Your task to perform on an android device: Open location settings Image 0: 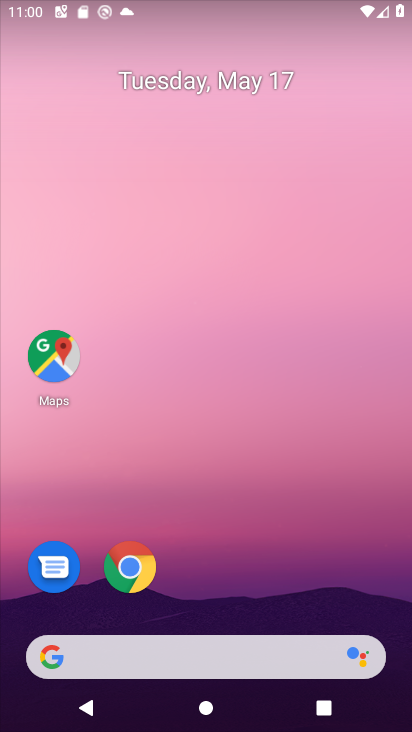
Step 0: drag from (201, 596) to (234, 166)
Your task to perform on an android device: Open location settings Image 1: 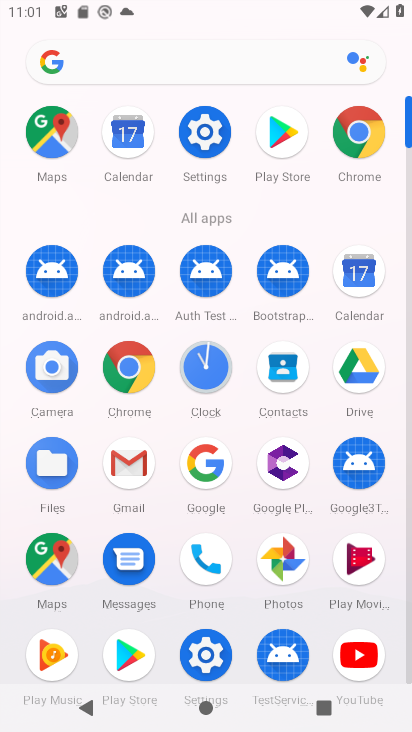
Step 1: click (211, 127)
Your task to perform on an android device: Open location settings Image 2: 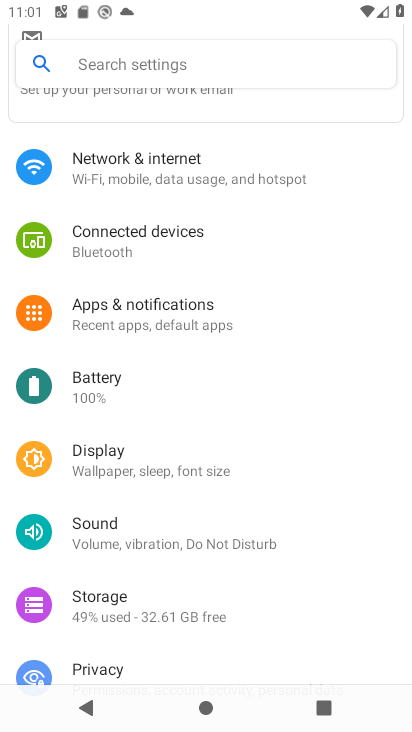
Step 2: drag from (140, 264) to (198, 157)
Your task to perform on an android device: Open location settings Image 3: 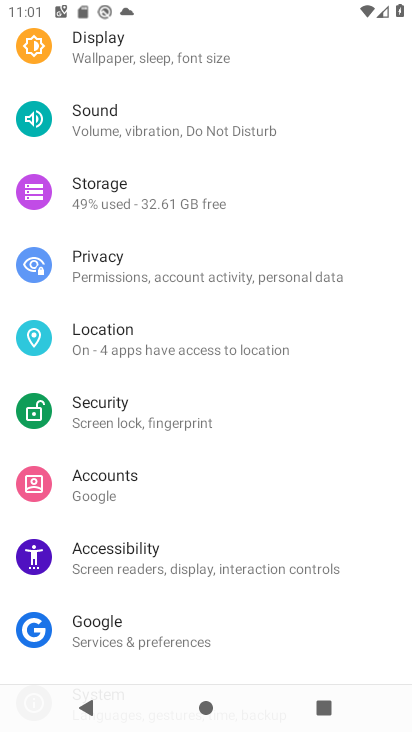
Step 3: click (121, 330)
Your task to perform on an android device: Open location settings Image 4: 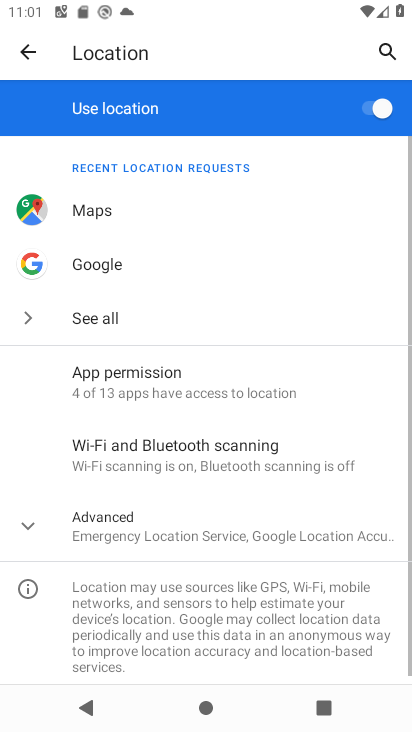
Step 4: task complete